Your task to perform on an android device: open a new tab in the chrome app Image 0: 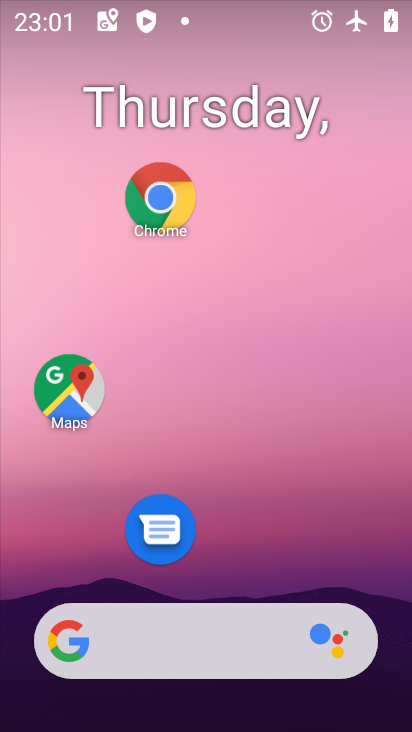
Step 0: click (167, 196)
Your task to perform on an android device: open a new tab in the chrome app Image 1: 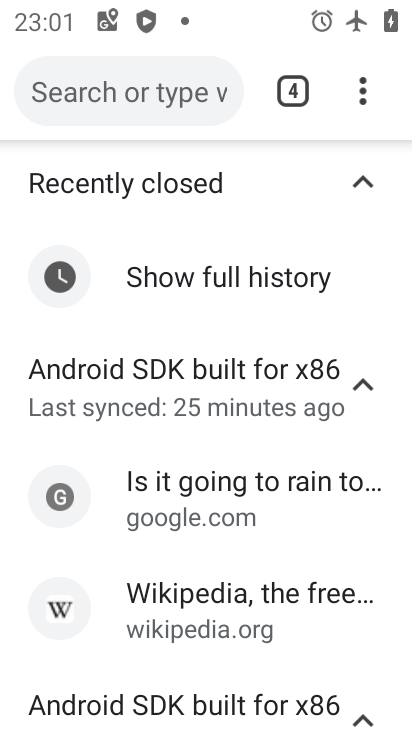
Step 1: click (364, 94)
Your task to perform on an android device: open a new tab in the chrome app Image 2: 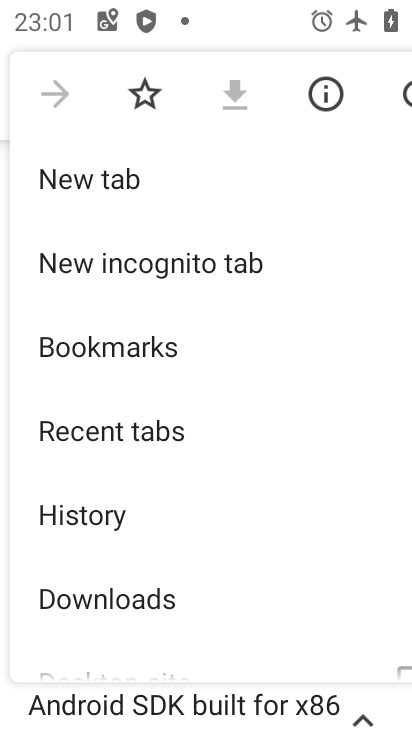
Step 2: click (109, 181)
Your task to perform on an android device: open a new tab in the chrome app Image 3: 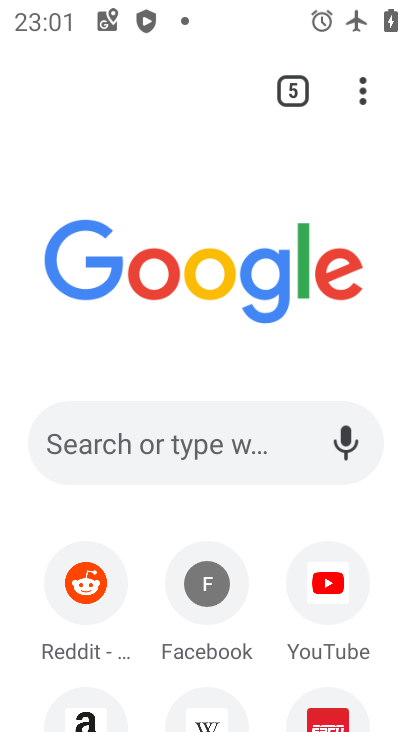
Step 3: task complete